Your task to perform on an android device: change keyboard looks Image 0: 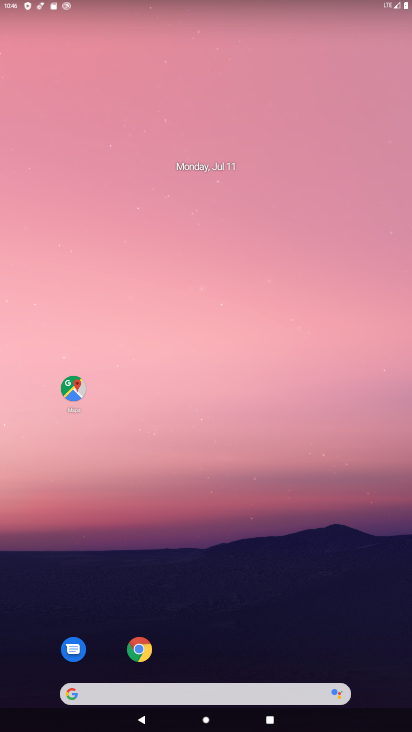
Step 0: drag from (302, 577) to (228, 132)
Your task to perform on an android device: change keyboard looks Image 1: 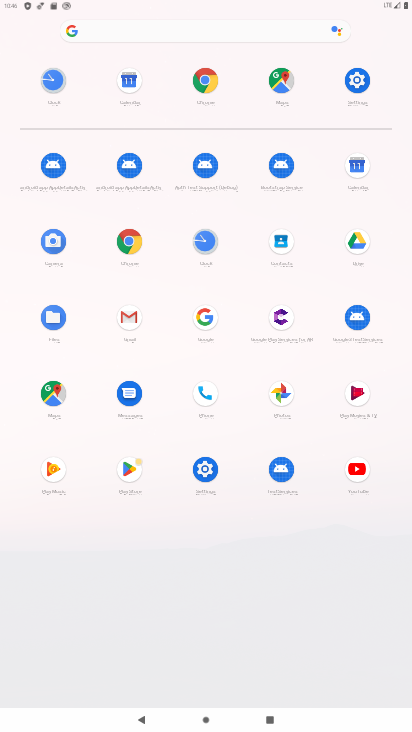
Step 1: click (362, 74)
Your task to perform on an android device: change keyboard looks Image 2: 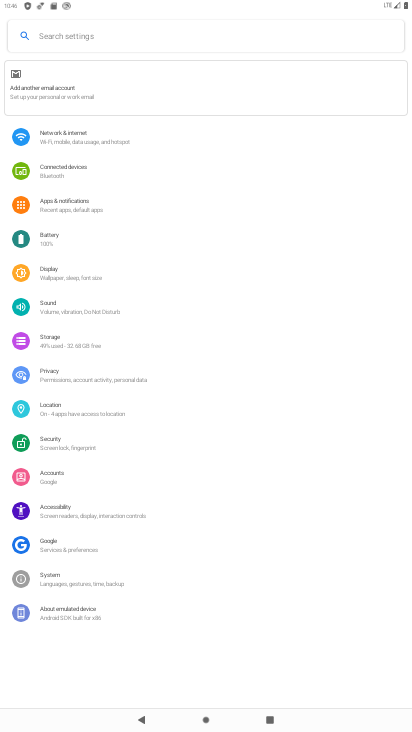
Step 2: click (60, 576)
Your task to perform on an android device: change keyboard looks Image 3: 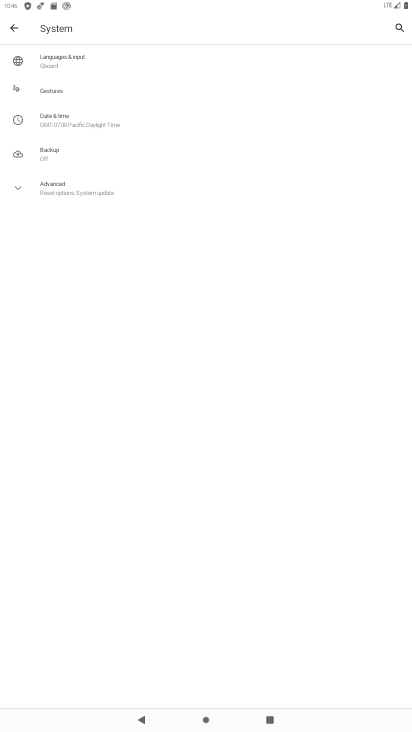
Step 3: click (74, 57)
Your task to perform on an android device: change keyboard looks Image 4: 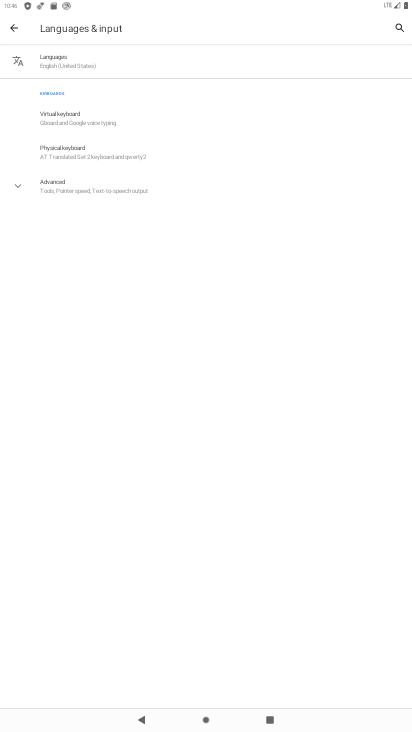
Step 4: click (79, 121)
Your task to perform on an android device: change keyboard looks Image 5: 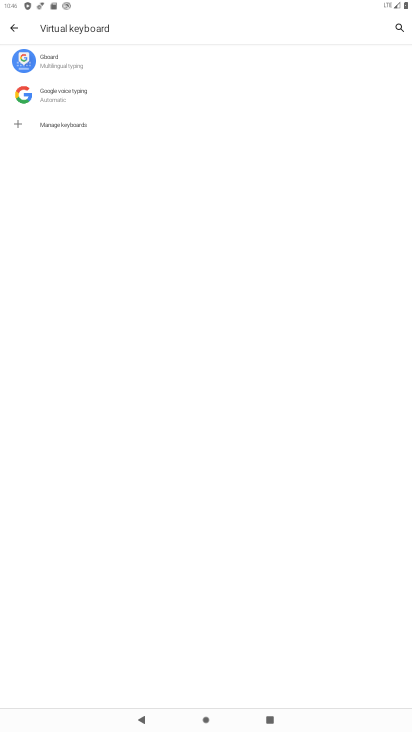
Step 5: click (54, 68)
Your task to perform on an android device: change keyboard looks Image 6: 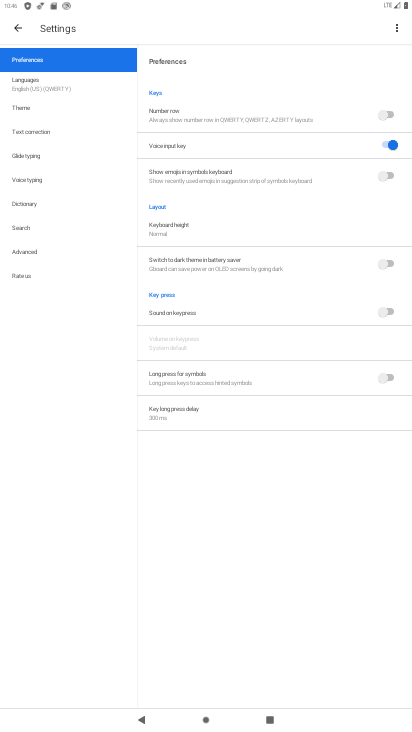
Step 6: click (22, 107)
Your task to perform on an android device: change keyboard looks Image 7: 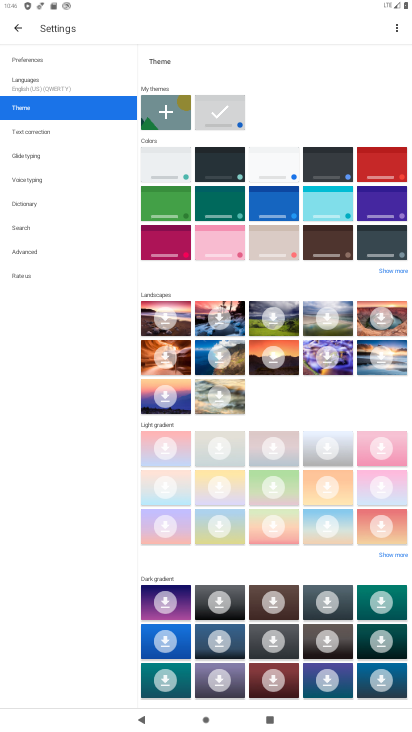
Step 7: click (175, 167)
Your task to perform on an android device: change keyboard looks Image 8: 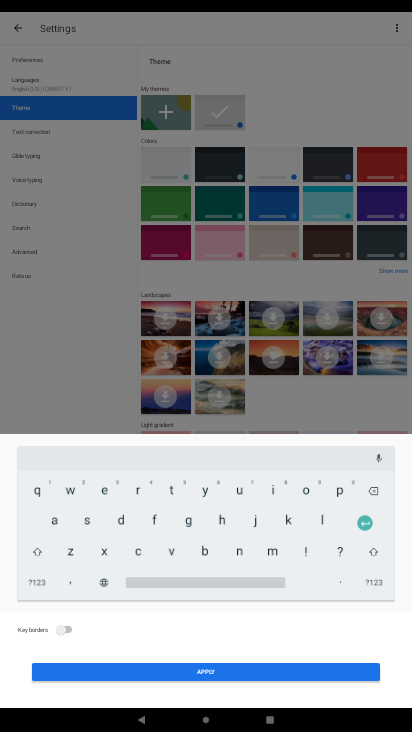
Step 8: click (223, 671)
Your task to perform on an android device: change keyboard looks Image 9: 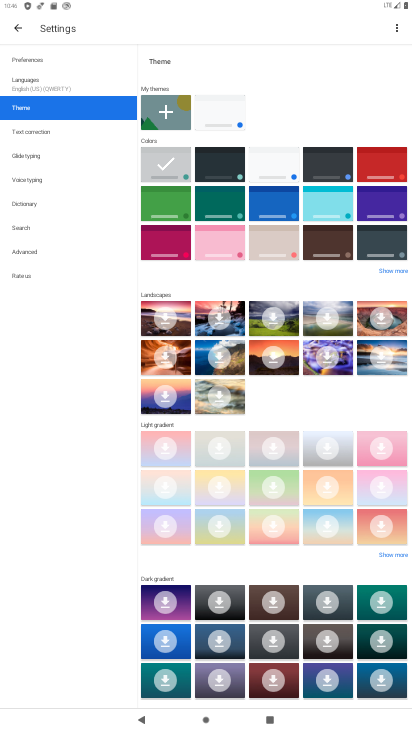
Step 9: task complete